Your task to perform on an android device: Open Google Image 0: 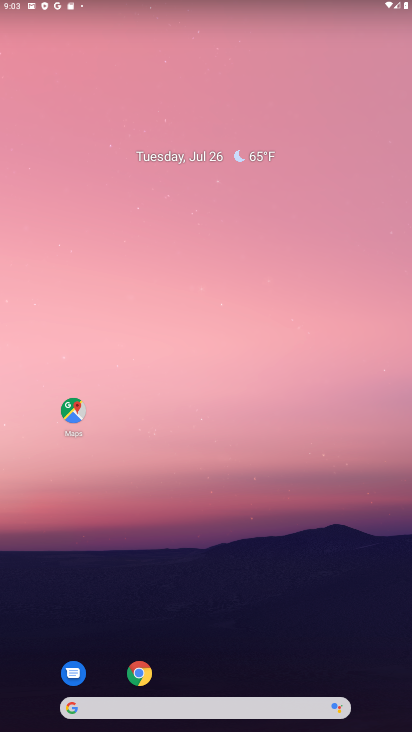
Step 0: click (140, 672)
Your task to perform on an android device: Open Google Image 1: 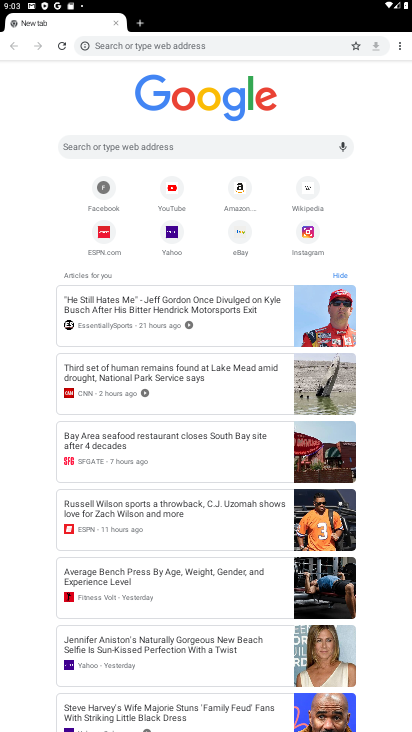
Step 1: task complete